Your task to perform on an android device: What's the weather today? Image 0: 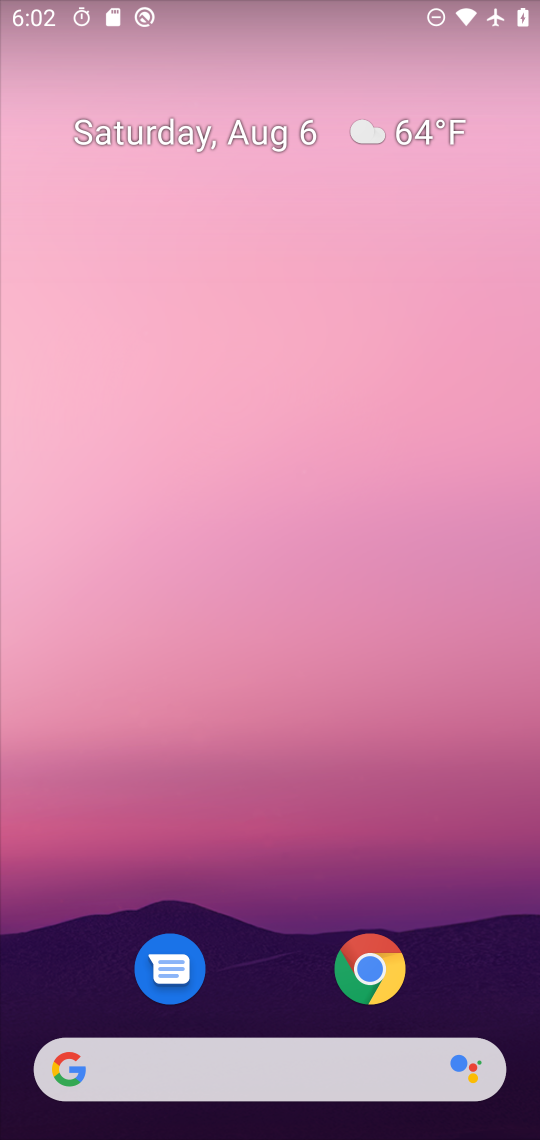
Step 0: press home button
Your task to perform on an android device: What's the weather today? Image 1: 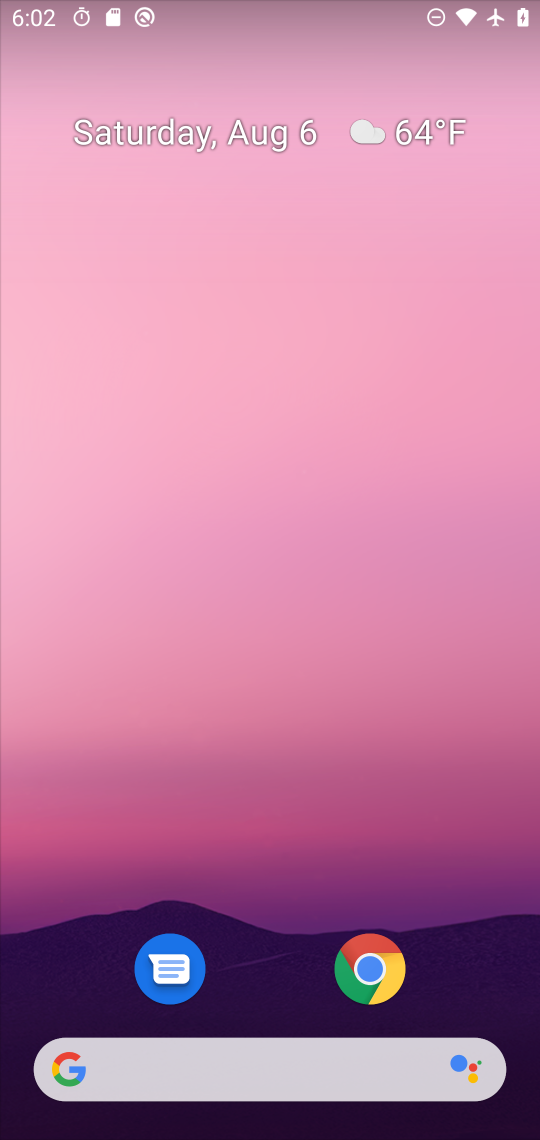
Step 1: click (63, 1081)
Your task to perform on an android device: What's the weather today? Image 2: 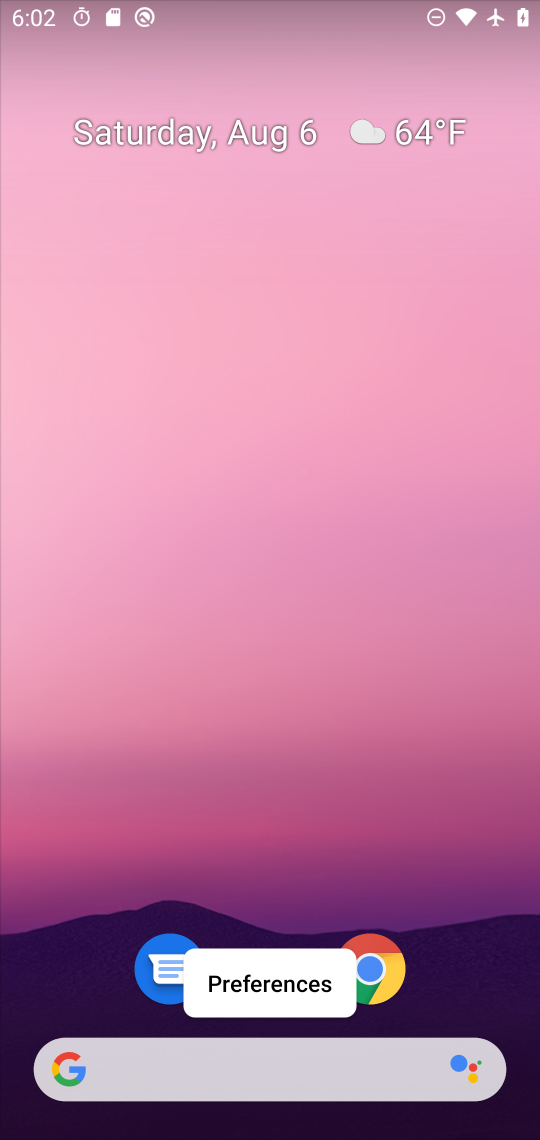
Step 2: click (53, 1077)
Your task to perform on an android device: What's the weather today? Image 3: 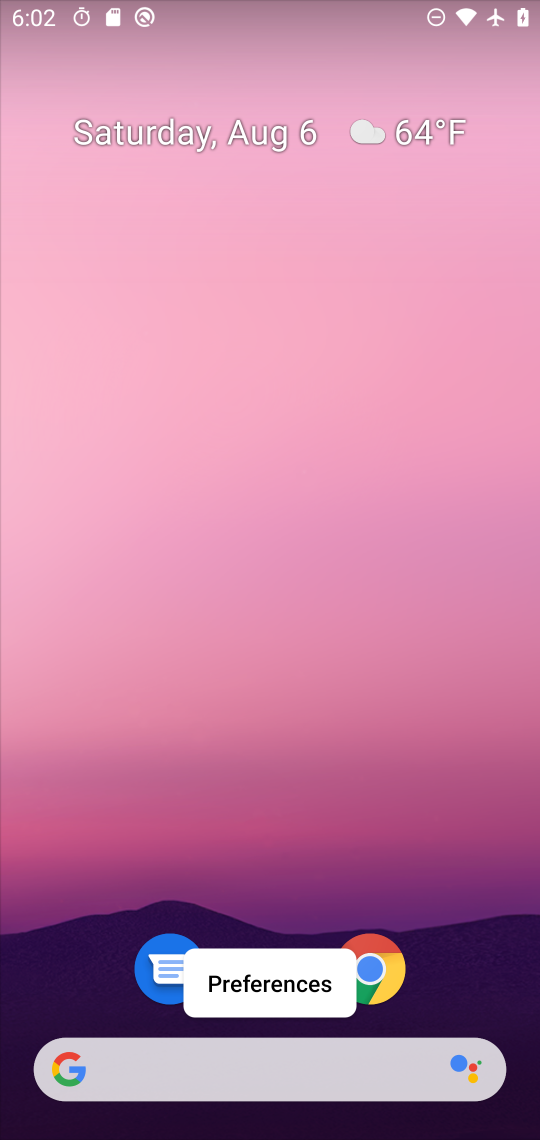
Step 3: click (72, 1064)
Your task to perform on an android device: What's the weather today? Image 4: 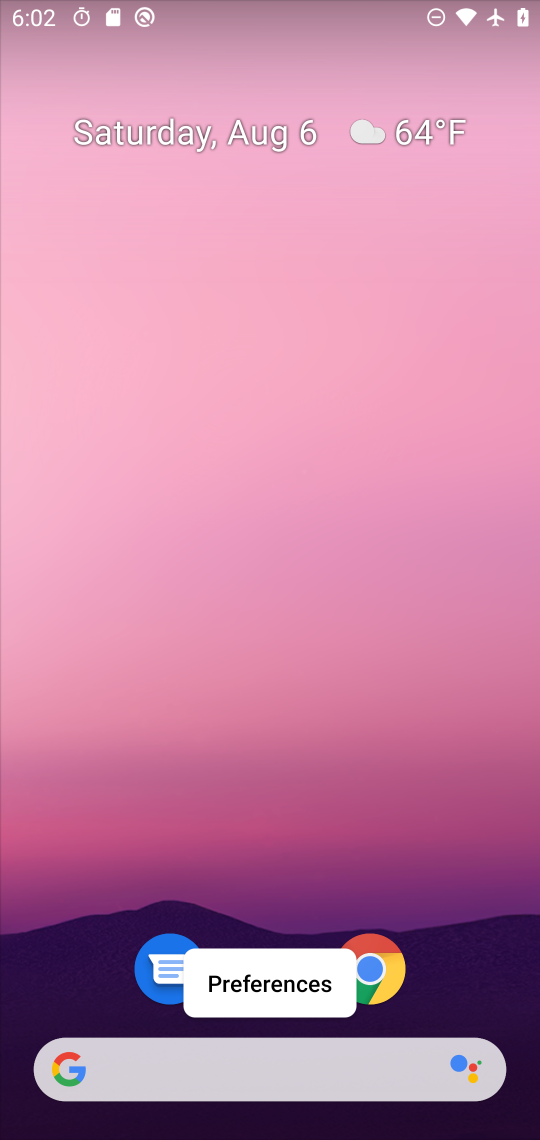
Step 4: click (59, 1061)
Your task to perform on an android device: What's the weather today? Image 5: 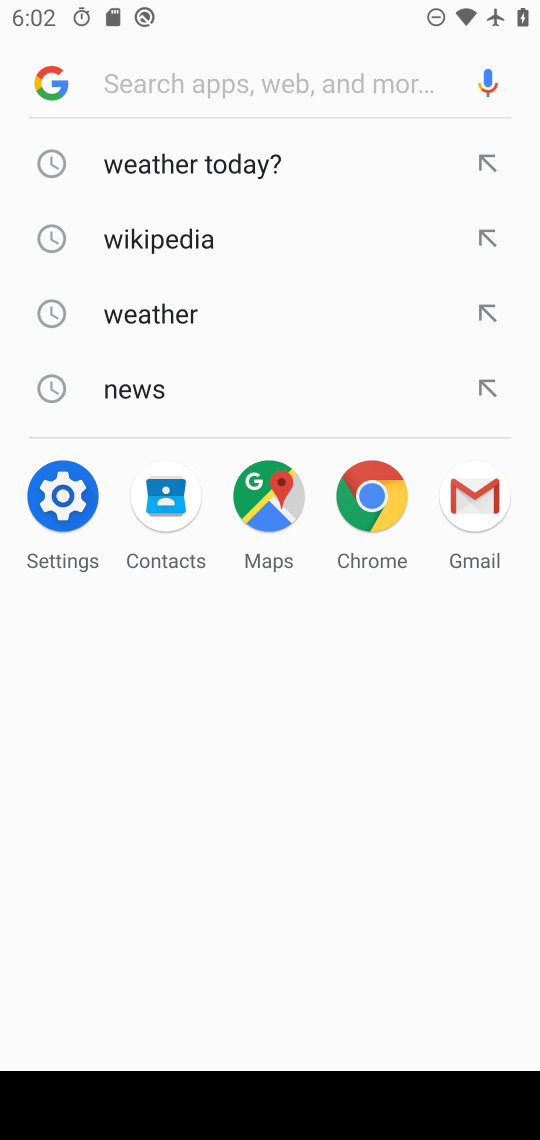
Step 5: click (195, 163)
Your task to perform on an android device: What's the weather today? Image 6: 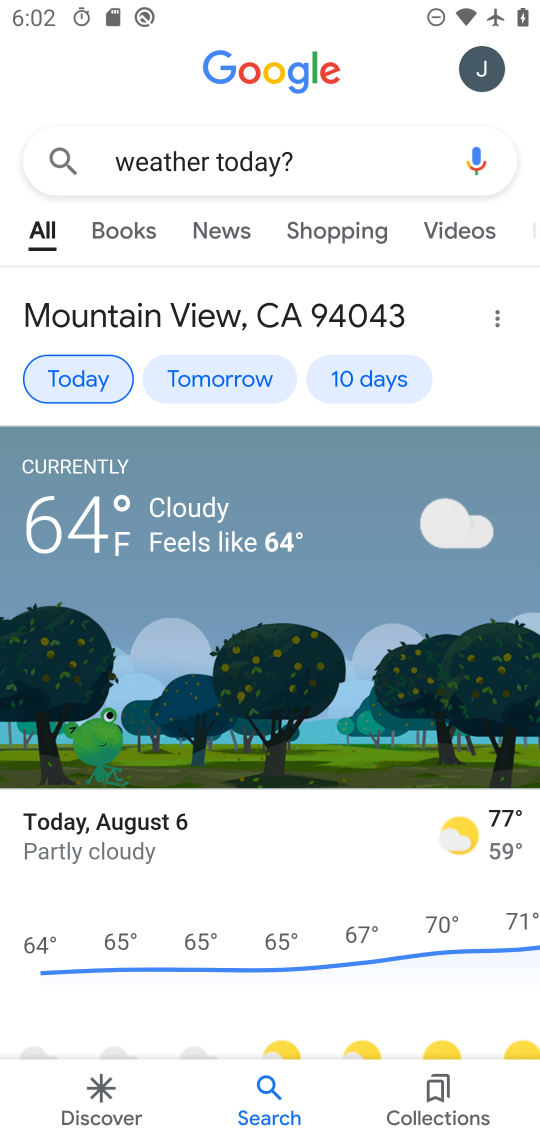
Step 6: task complete